Your task to perform on an android device: open app "HBO Max: Stream TV & Movies" Image 0: 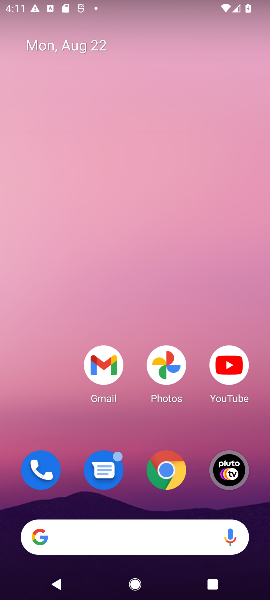
Step 0: drag from (105, 495) to (118, 117)
Your task to perform on an android device: open app "HBO Max: Stream TV & Movies" Image 1: 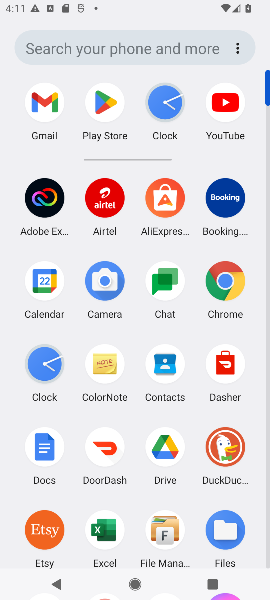
Step 1: click (106, 100)
Your task to perform on an android device: open app "HBO Max: Stream TV & Movies" Image 2: 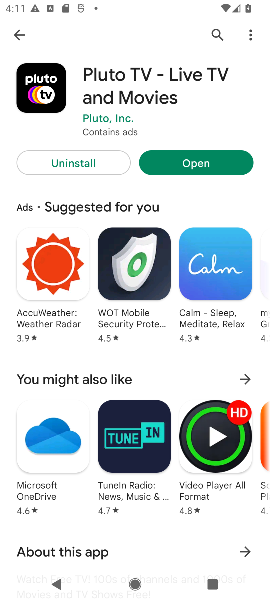
Step 2: click (21, 37)
Your task to perform on an android device: open app "HBO Max: Stream TV & Movies" Image 3: 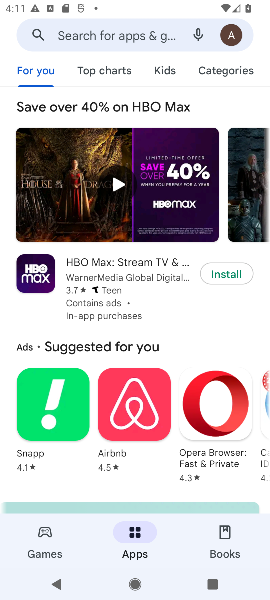
Step 3: click (131, 25)
Your task to perform on an android device: open app "HBO Max: Stream TV & Movies" Image 4: 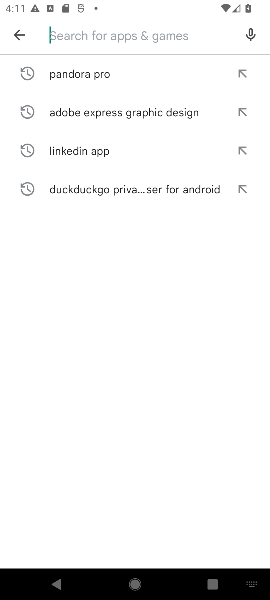
Step 4: type "HBO Max: Stream TV & Movies "
Your task to perform on an android device: open app "HBO Max: Stream TV & Movies" Image 5: 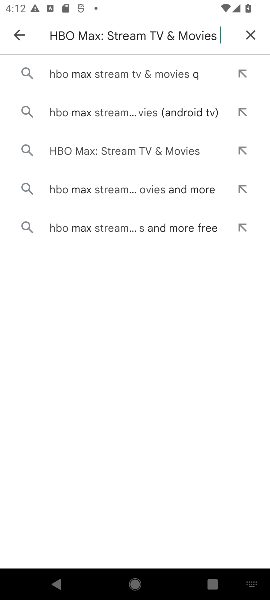
Step 5: click (166, 71)
Your task to perform on an android device: open app "HBO Max: Stream TV & Movies" Image 6: 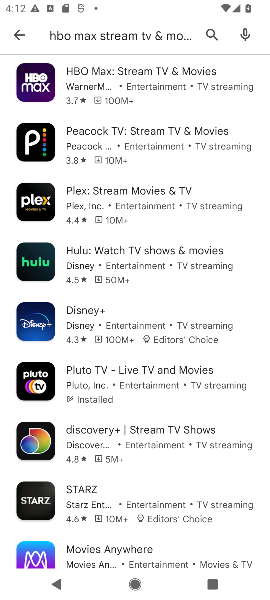
Step 6: click (154, 78)
Your task to perform on an android device: open app "HBO Max: Stream TV & Movies" Image 7: 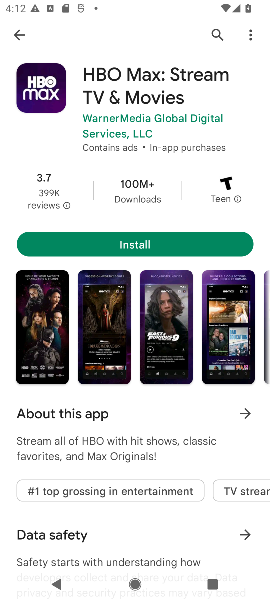
Step 7: click (132, 246)
Your task to perform on an android device: open app "HBO Max: Stream TV & Movies" Image 8: 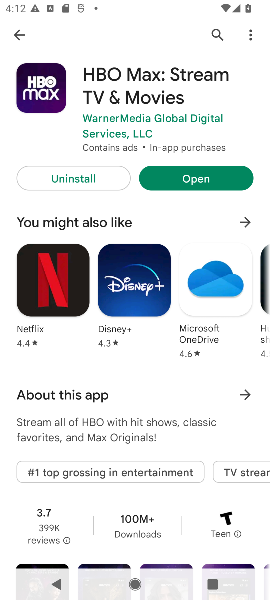
Step 8: click (188, 174)
Your task to perform on an android device: open app "HBO Max: Stream TV & Movies" Image 9: 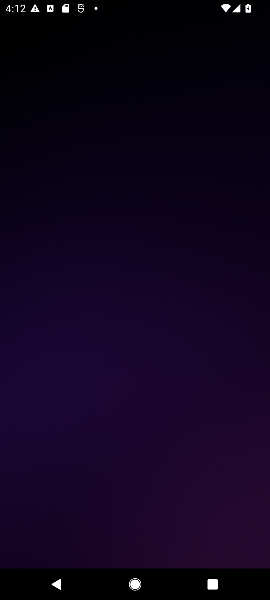
Step 9: task complete